Your task to perform on an android device: Go to wifi settings Image 0: 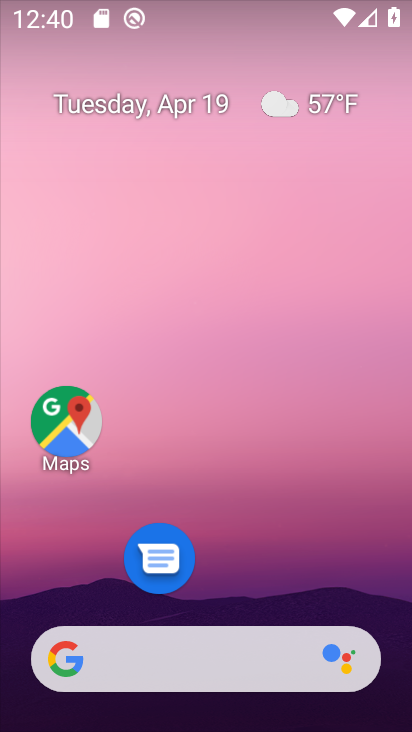
Step 0: drag from (250, 533) to (253, 46)
Your task to perform on an android device: Go to wifi settings Image 1: 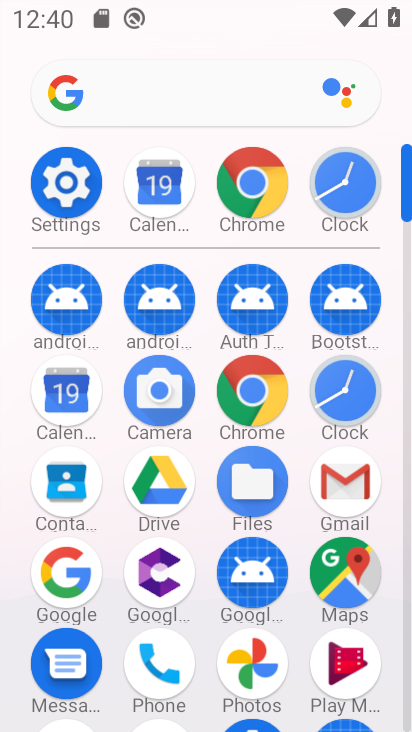
Step 1: click (54, 174)
Your task to perform on an android device: Go to wifi settings Image 2: 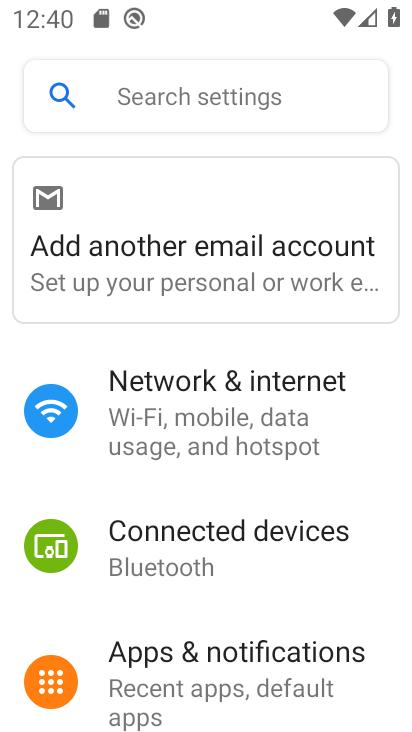
Step 2: click (235, 439)
Your task to perform on an android device: Go to wifi settings Image 3: 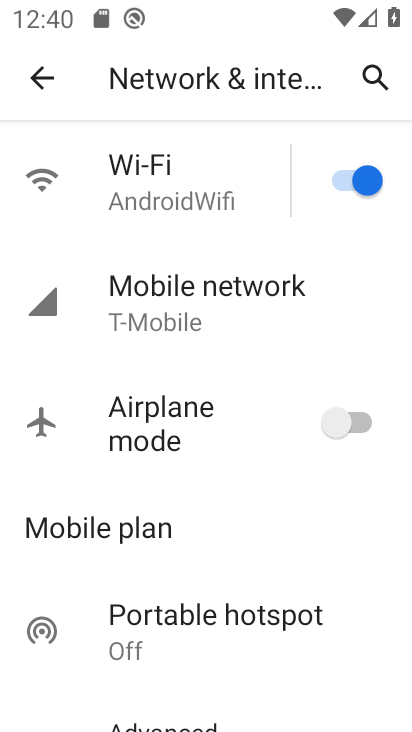
Step 3: click (118, 182)
Your task to perform on an android device: Go to wifi settings Image 4: 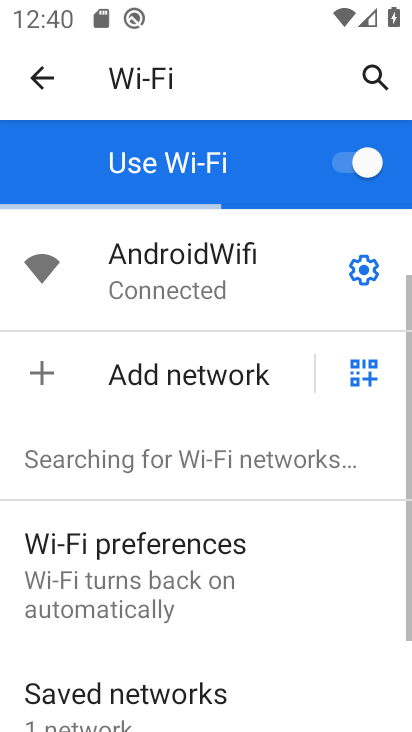
Step 4: task complete